Your task to perform on an android device: turn on bluetooth scan Image 0: 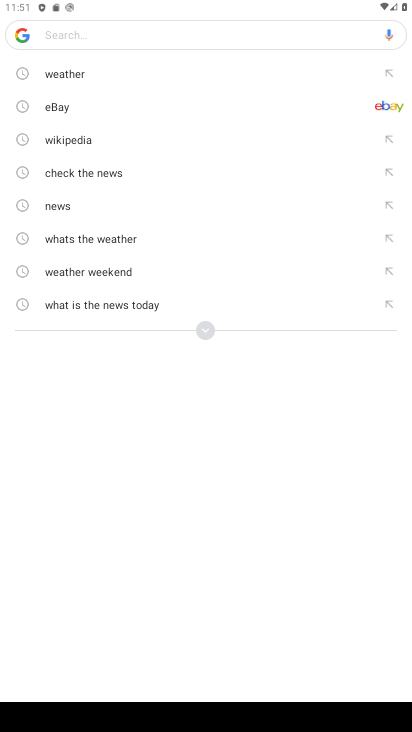
Step 0: press home button
Your task to perform on an android device: turn on bluetooth scan Image 1: 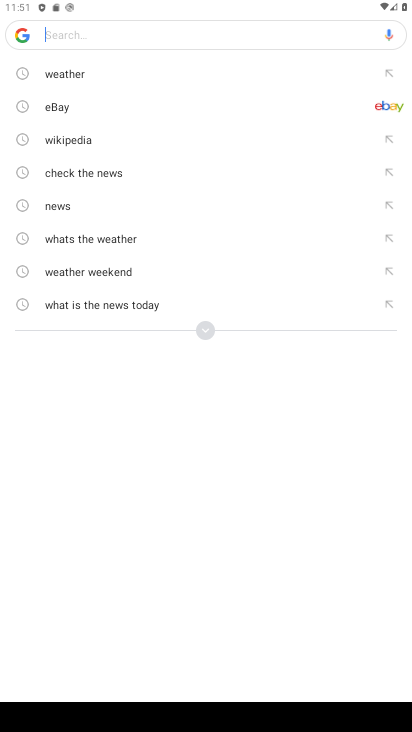
Step 1: press home button
Your task to perform on an android device: turn on bluetooth scan Image 2: 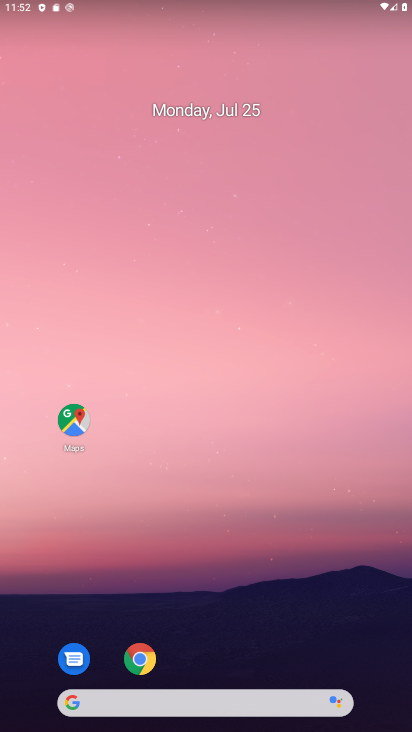
Step 2: drag from (200, 645) to (224, 277)
Your task to perform on an android device: turn on bluetooth scan Image 3: 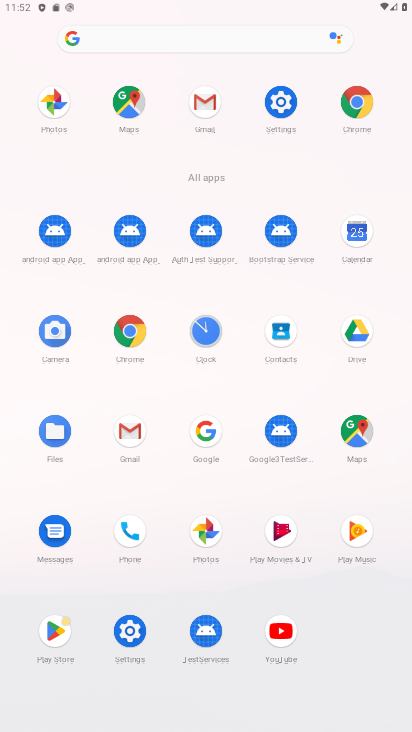
Step 3: click (129, 625)
Your task to perform on an android device: turn on bluetooth scan Image 4: 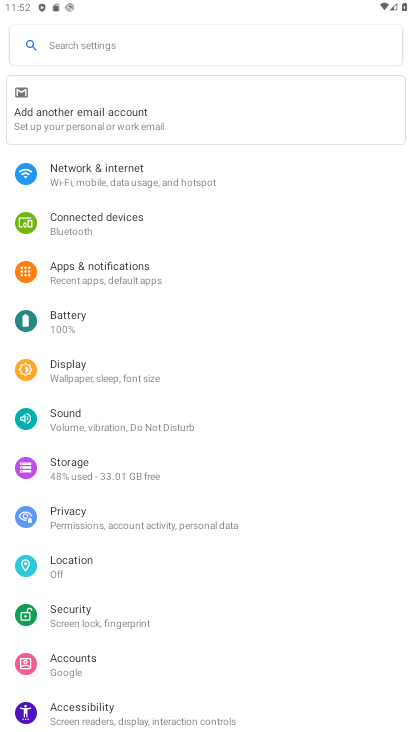
Step 4: click (146, 561)
Your task to perform on an android device: turn on bluetooth scan Image 5: 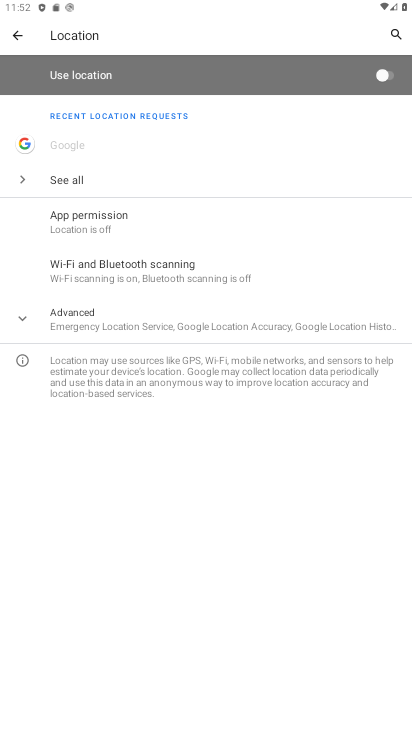
Step 5: click (127, 317)
Your task to perform on an android device: turn on bluetooth scan Image 6: 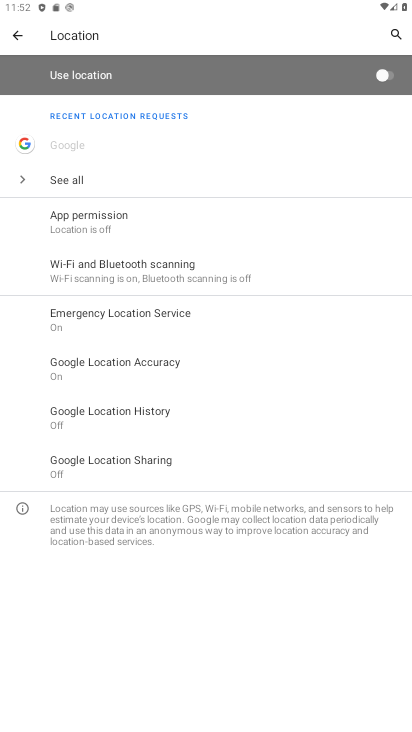
Step 6: click (128, 281)
Your task to perform on an android device: turn on bluetooth scan Image 7: 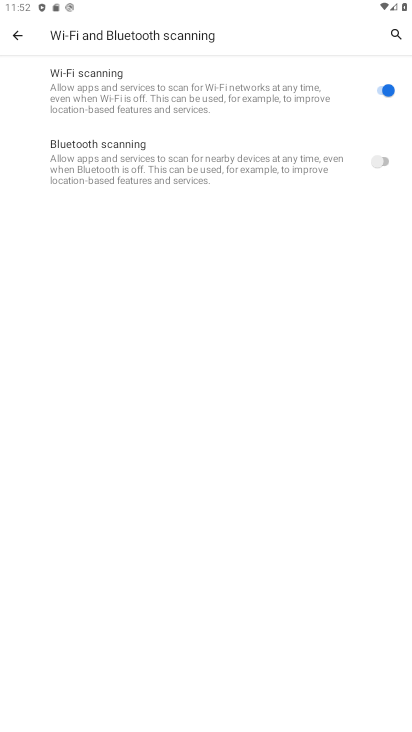
Step 7: click (334, 160)
Your task to perform on an android device: turn on bluetooth scan Image 8: 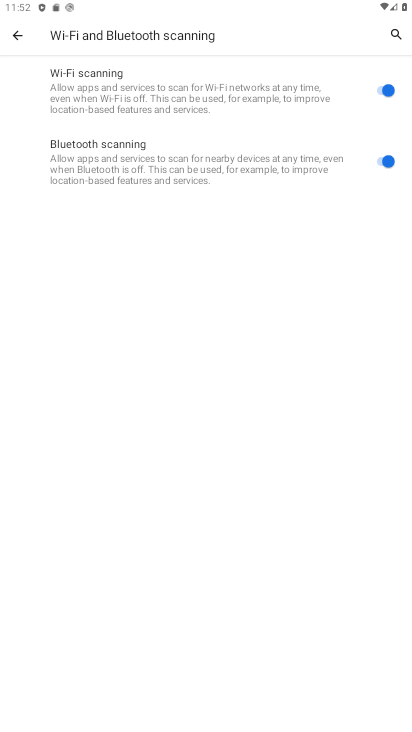
Step 8: task complete